Your task to perform on an android device: turn off smart reply in the gmail app Image 0: 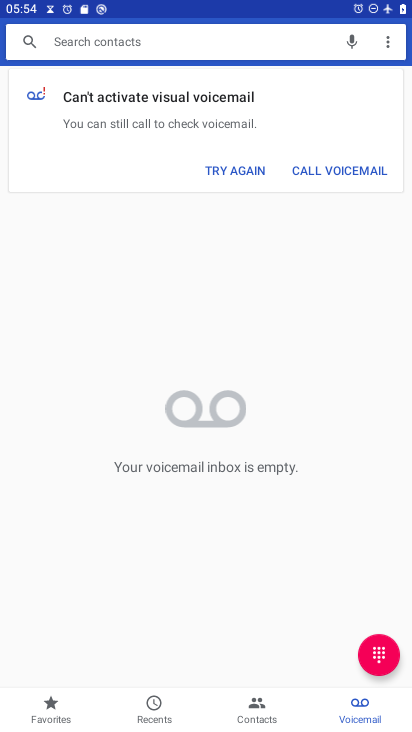
Step 0: press home button
Your task to perform on an android device: turn off smart reply in the gmail app Image 1: 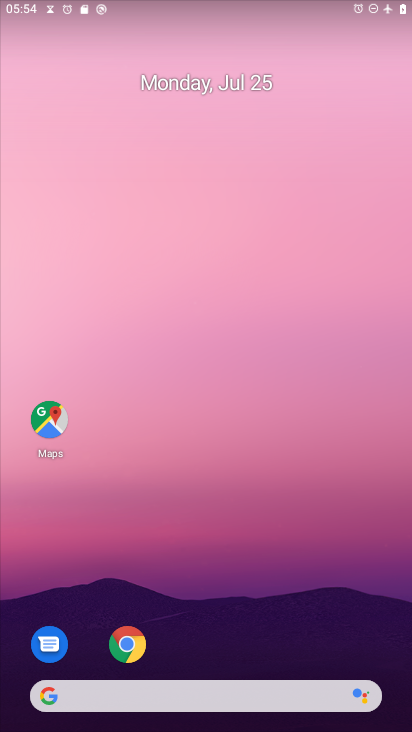
Step 1: drag from (242, 647) to (249, 119)
Your task to perform on an android device: turn off smart reply in the gmail app Image 2: 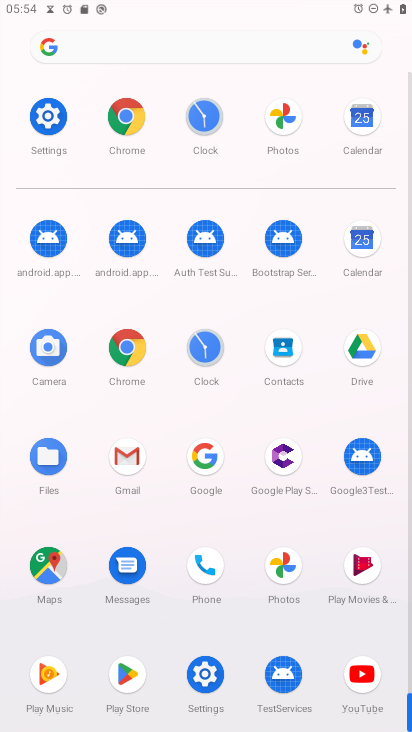
Step 2: click (124, 461)
Your task to perform on an android device: turn off smart reply in the gmail app Image 3: 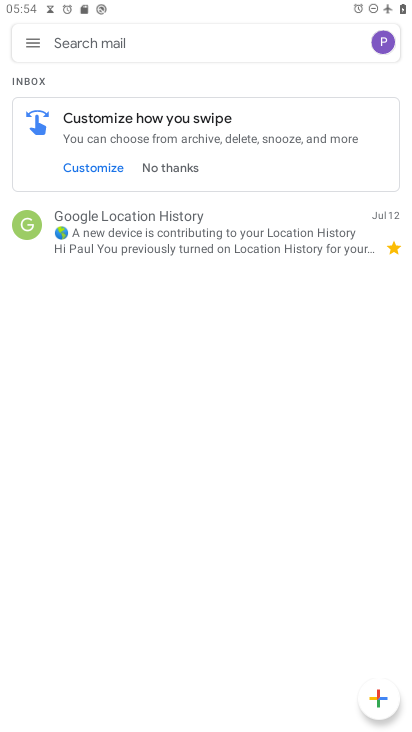
Step 3: click (33, 41)
Your task to perform on an android device: turn off smart reply in the gmail app Image 4: 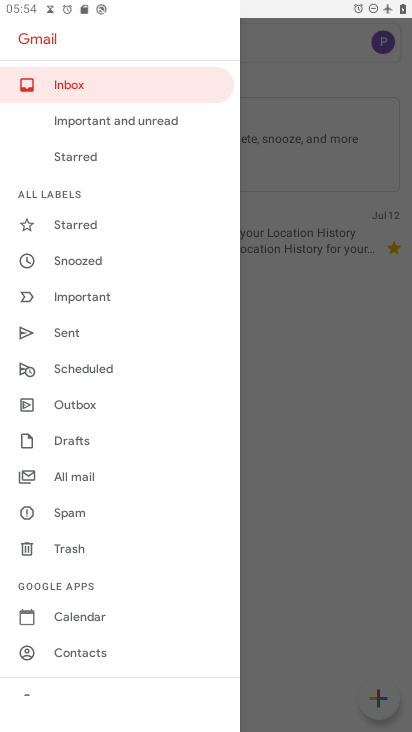
Step 4: drag from (157, 626) to (124, 157)
Your task to perform on an android device: turn off smart reply in the gmail app Image 5: 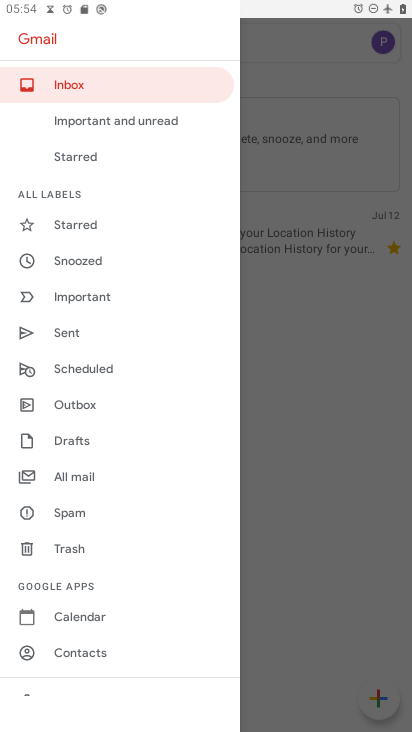
Step 5: drag from (185, 595) to (166, 165)
Your task to perform on an android device: turn off smart reply in the gmail app Image 6: 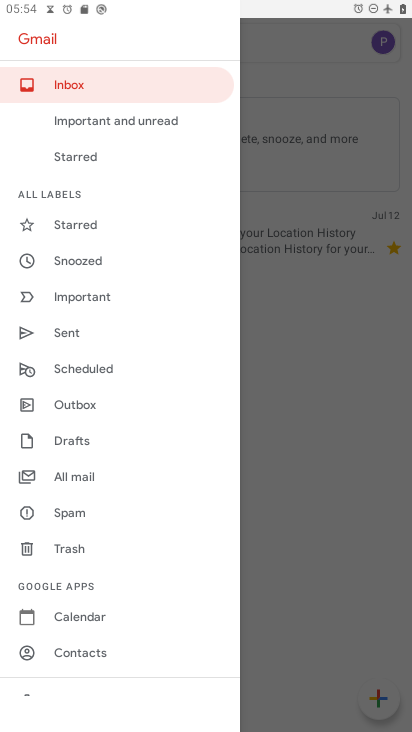
Step 6: drag from (183, 644) to (210, 144)
Your task to perform on an android device: turn off smart reply in the gmail app Image 7: 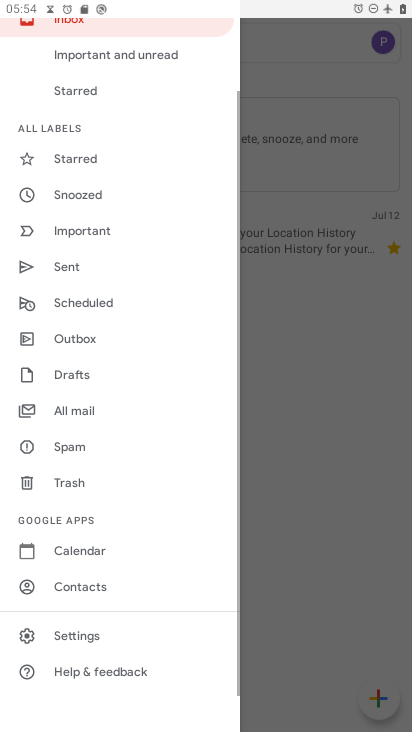
Step 7: click (69, 634)
Your task to perform on an android device: turn off smart reply in the gmail app Image 8: 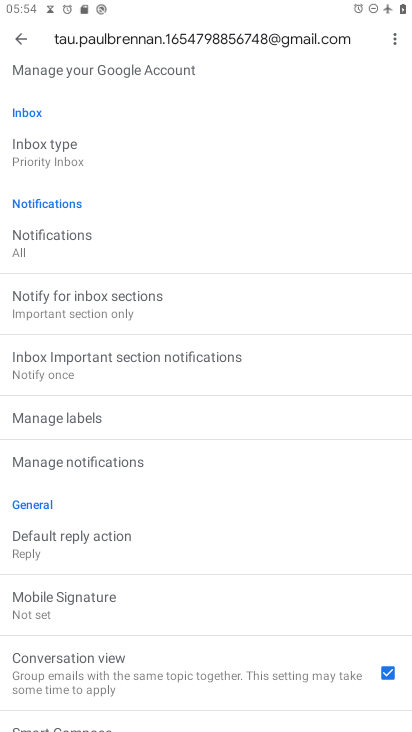
Step 8: drag from (269, 656) to (319, 216)
Your task to perform on an android device: turn off smart reply in the gmail app Image 9: 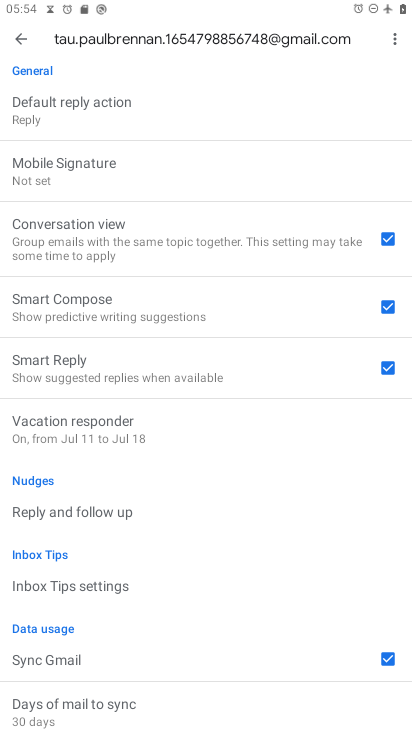
Step 9: click (384, 365)
Your task to perform on an android device: turn off smart reply in the gmail app Image 10: 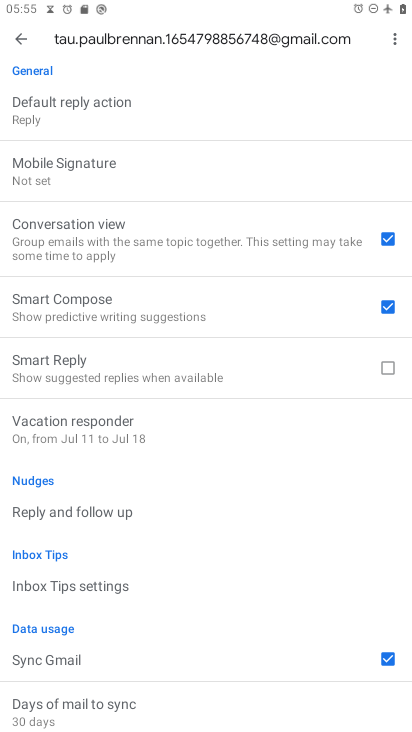
Step 10: task complete